Your task to perform on an android device: Turn on the flashlight Image 0: 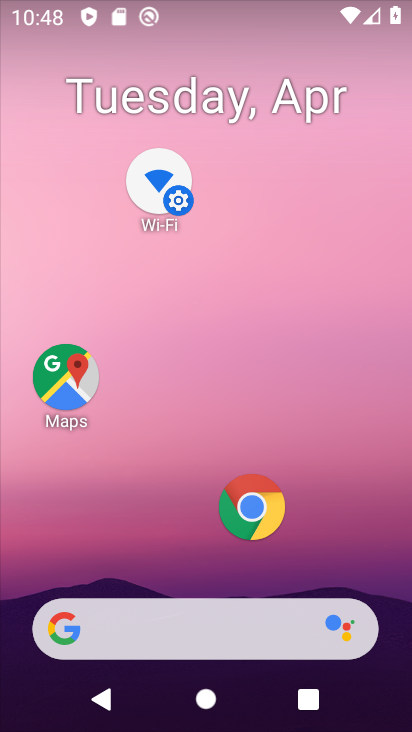
Step 0: click (205, 407)
Your task to perform on an android device: Turn on the flashlight Image 1: 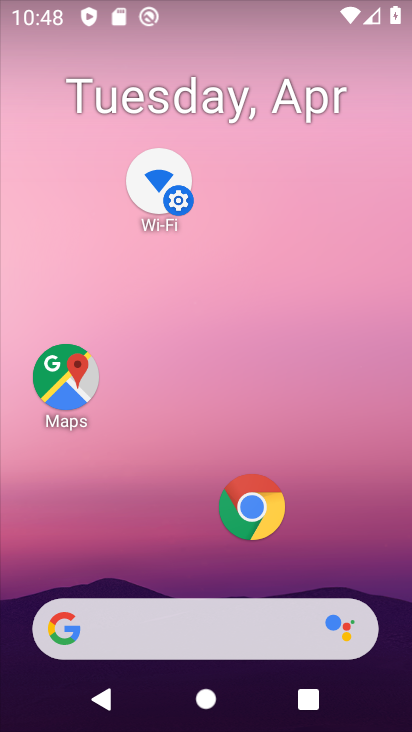
Step 1: drag from (68, 609) to (255, 234)
Your task to perform on an android device: Turn on the flashlight Image 2: 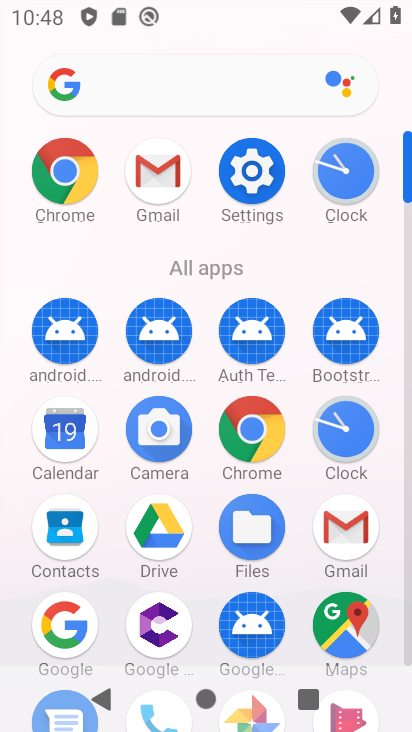
Step 2: click (249, 165)
Your task to perform on an android device: Turn on the flashlight Image 3: 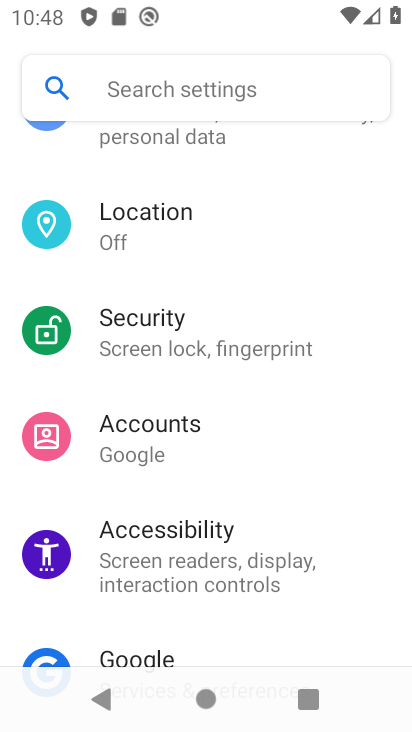
Step 3: task complete